Your task to perform on an android device: install app "Pandora - Music & Podcasts" Image 0: 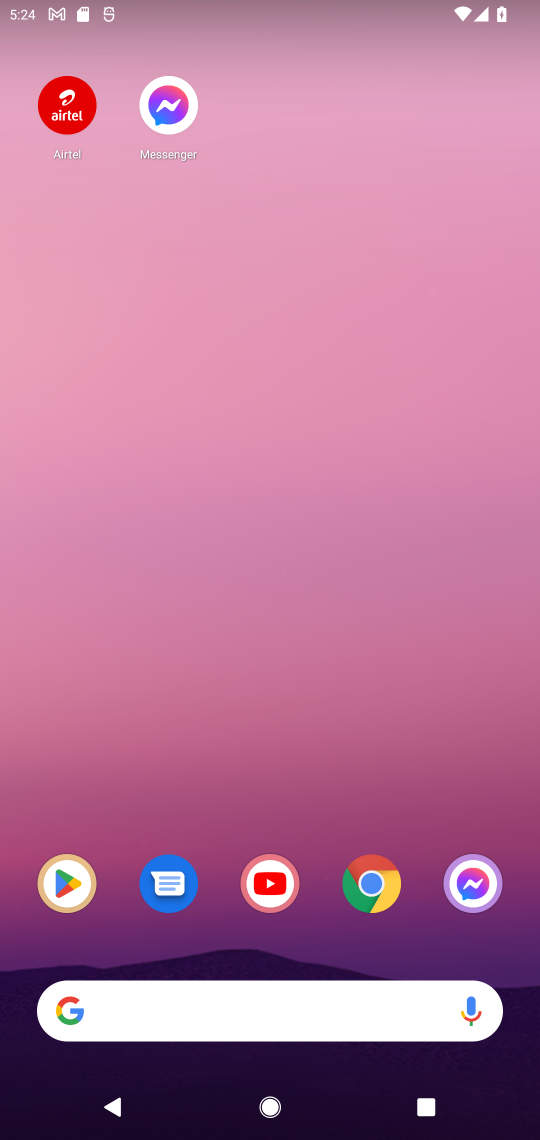
Step 0: press back button
Your task to perform on an android device: install app "Pandora - Music & Podcasts" Image 1: 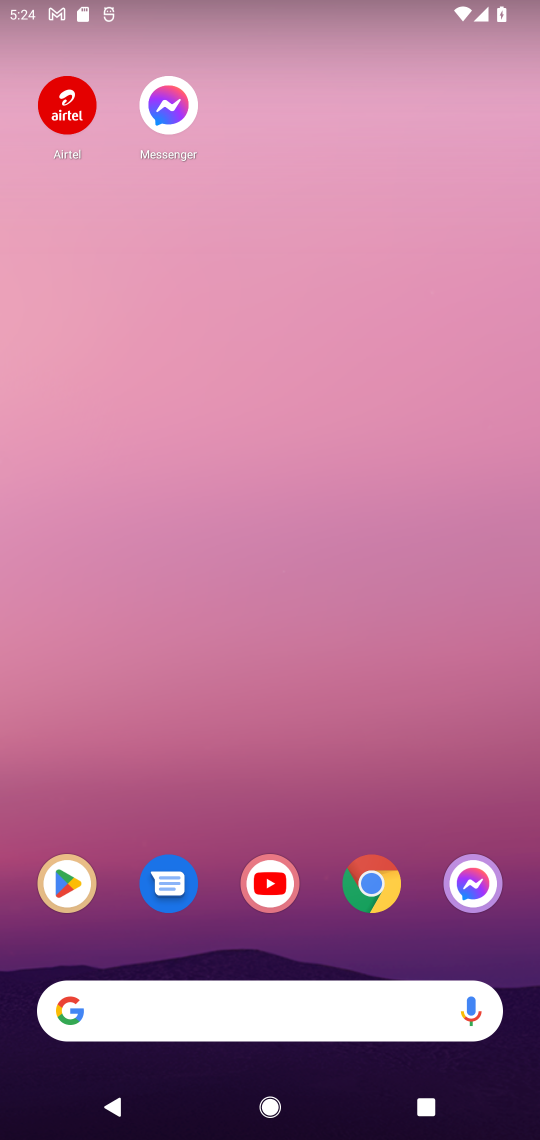
Step 1: click (62, 888)
Your task to perform on an android device: install app "Pandora - Music & Podcasts" Image 2: 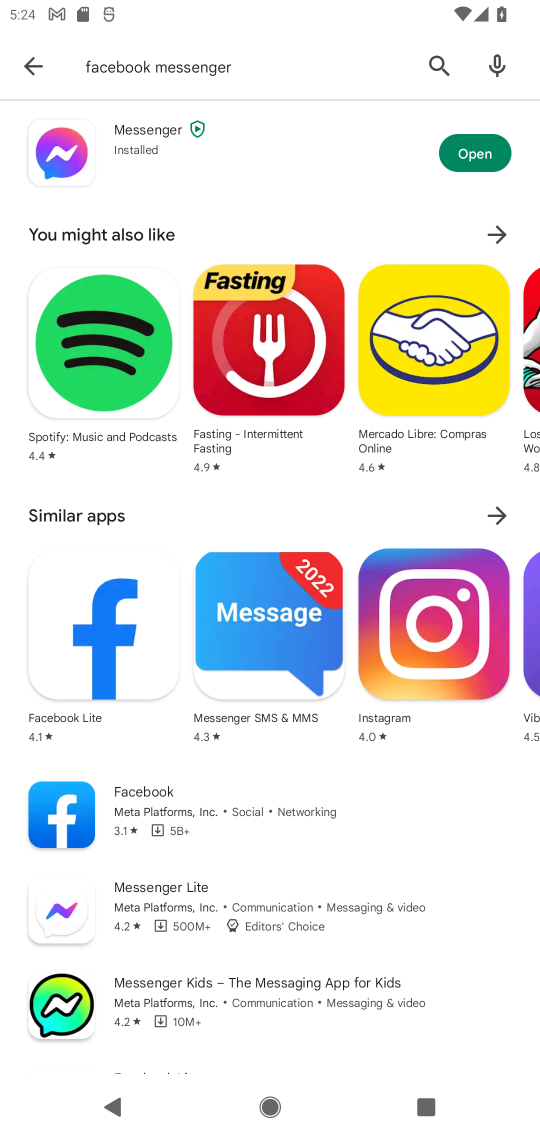
Step 2: click (35, 69)
Your task to perform on an android device: install app "Pandora - Music & Podcasts" Image 3: 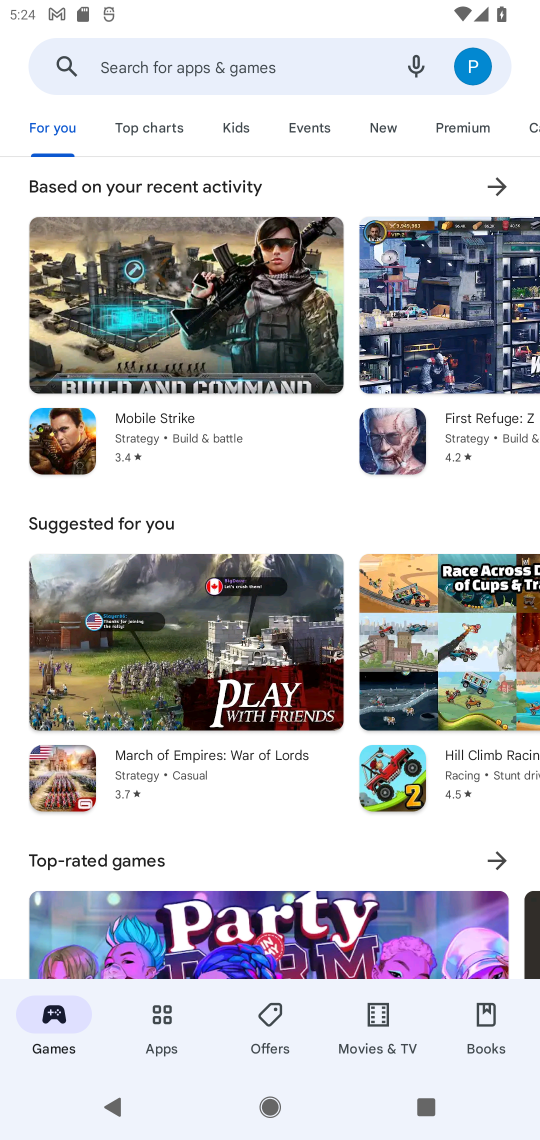
Step 3: click (201, 61)
Your task to perform on an android device: install app "Pandora - Music & Podcasts" Image 4: 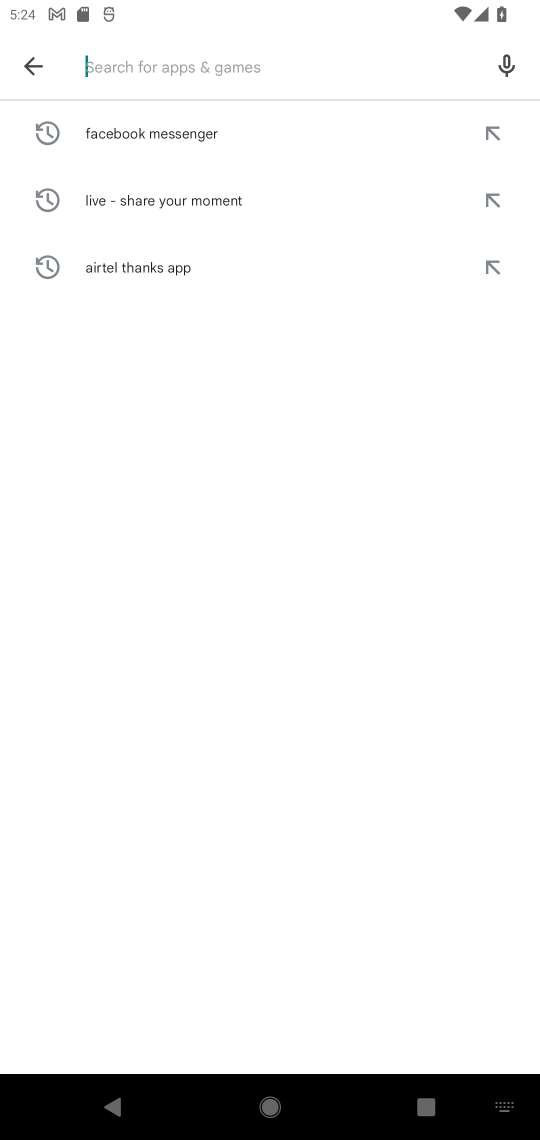
Step 4: type "Pandora"
Your task to perform on an android device: install app "Pandora - Music & Podcasts" Image 5: 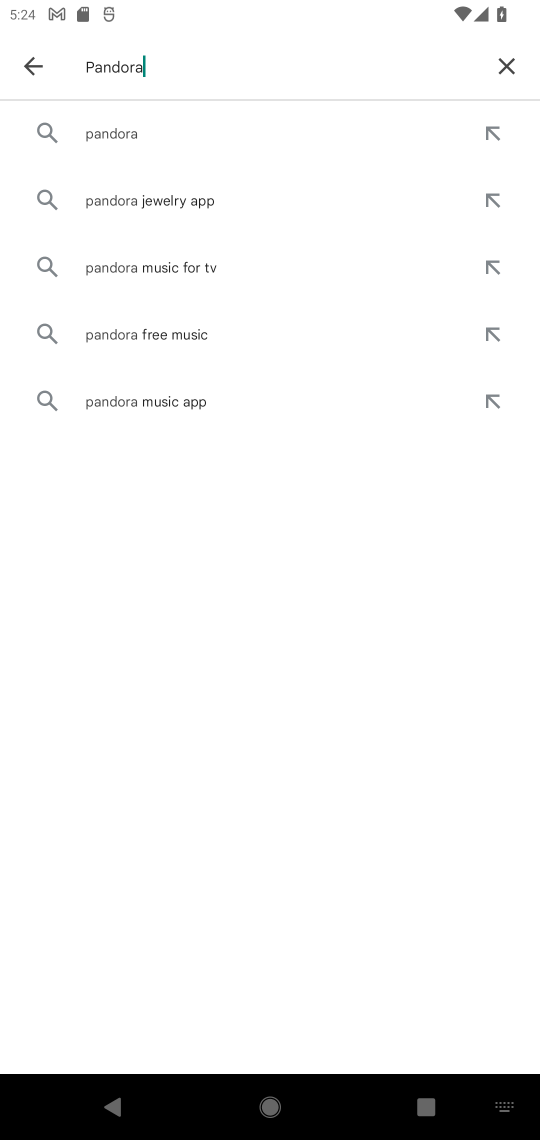
Step 5: click (91, 136)
Your task to perform on an android device: install app "Pandora - Music & Podcasts" Image 6: 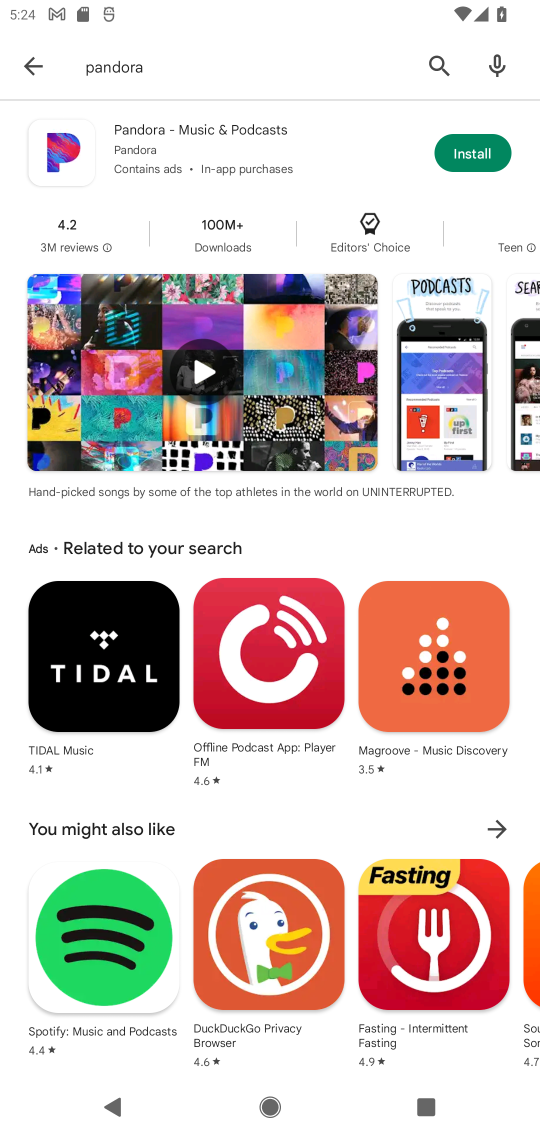
Step 6: click (490, 150)
Your task to perform on an android device: install app "Pandora - Music & Podcasts" Image 7: 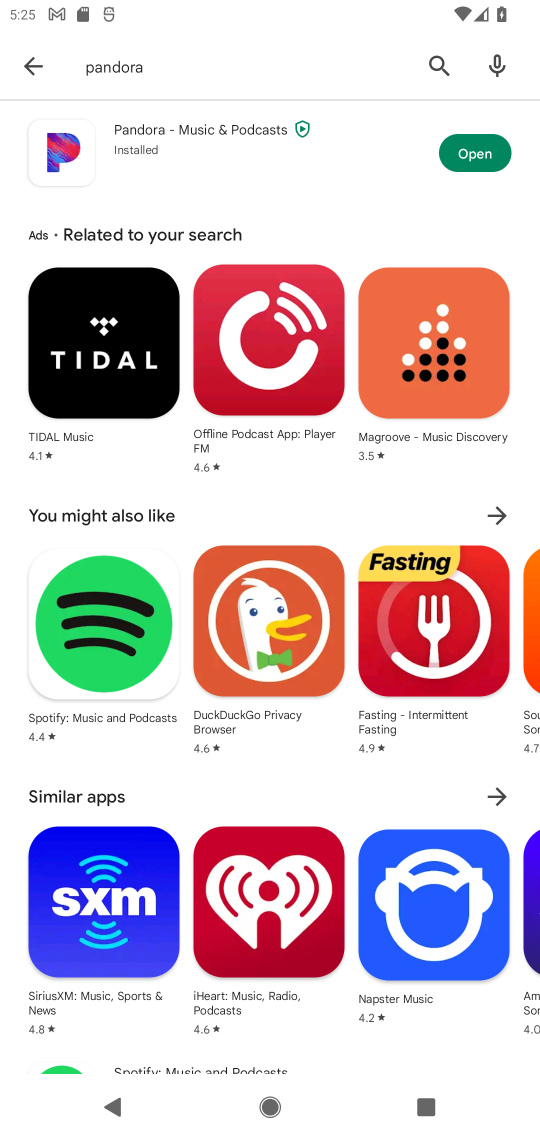
Step 7: click (486, 154)
Your task to perform on an android device: install app "Pandora - Music & Podcasts" Image 8: 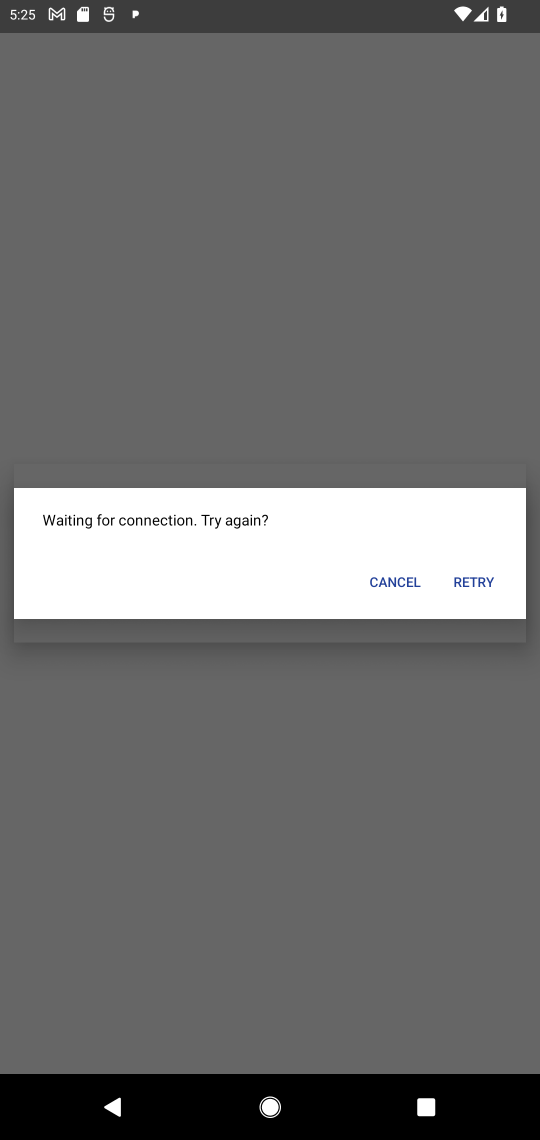
Step 8: task complete